Your task to perform on an android device: Do I have any events today? Image 0: 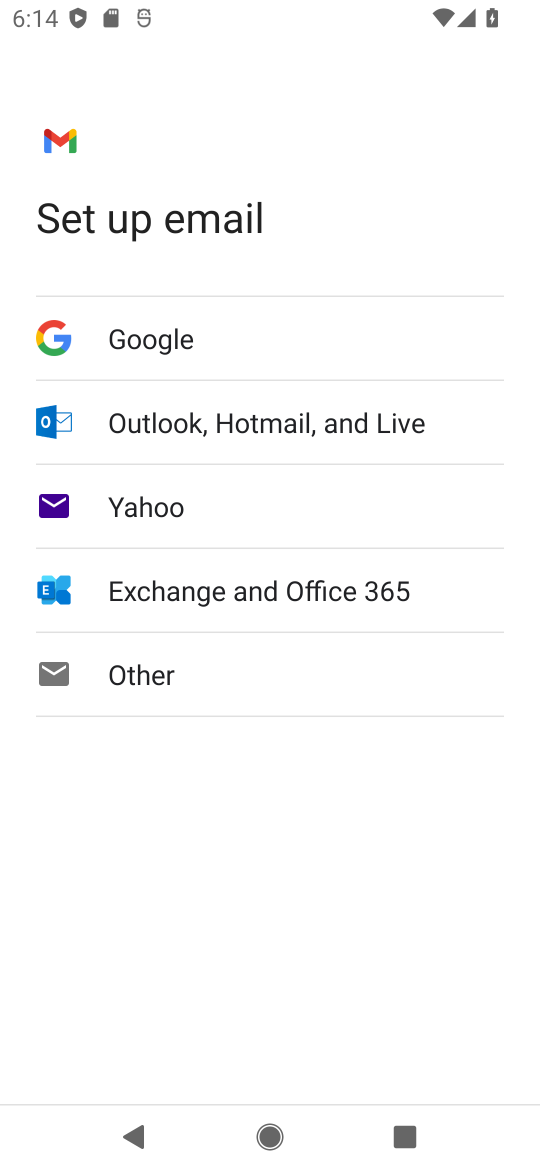
Step 0: press home button
Your task to perform on an android device: Do I have any events today? Image 1: 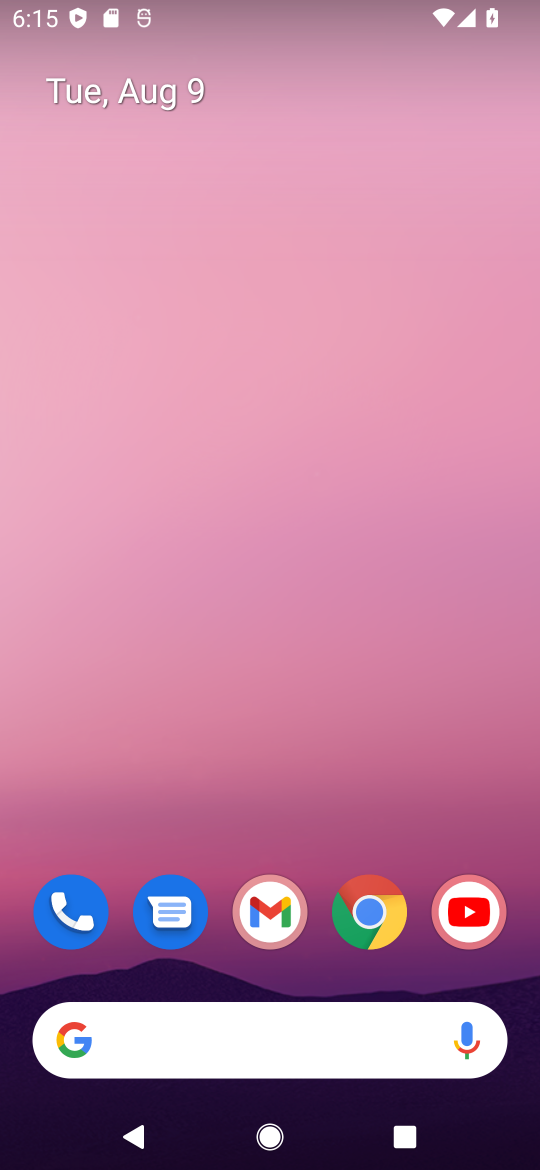
Step 1: drag from (298, 780) to (357, 276)
Your task to perform on an android device: Do I have any events today? Image 2: 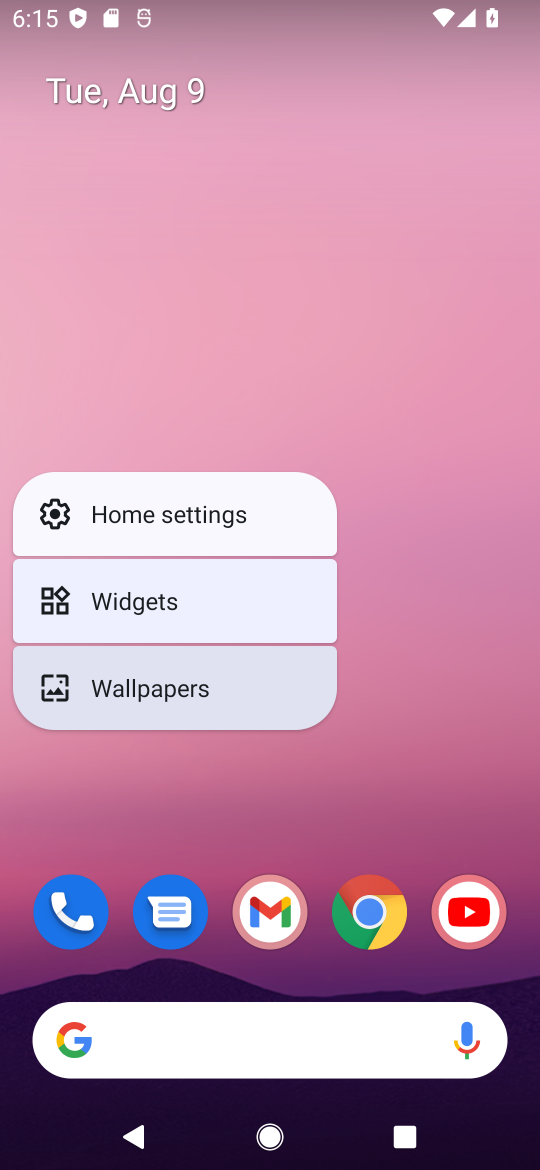
Step 2: drag from (366, 819) to (445, 310)
Your task to perform on an android device: Do I have any events today? Image 3: 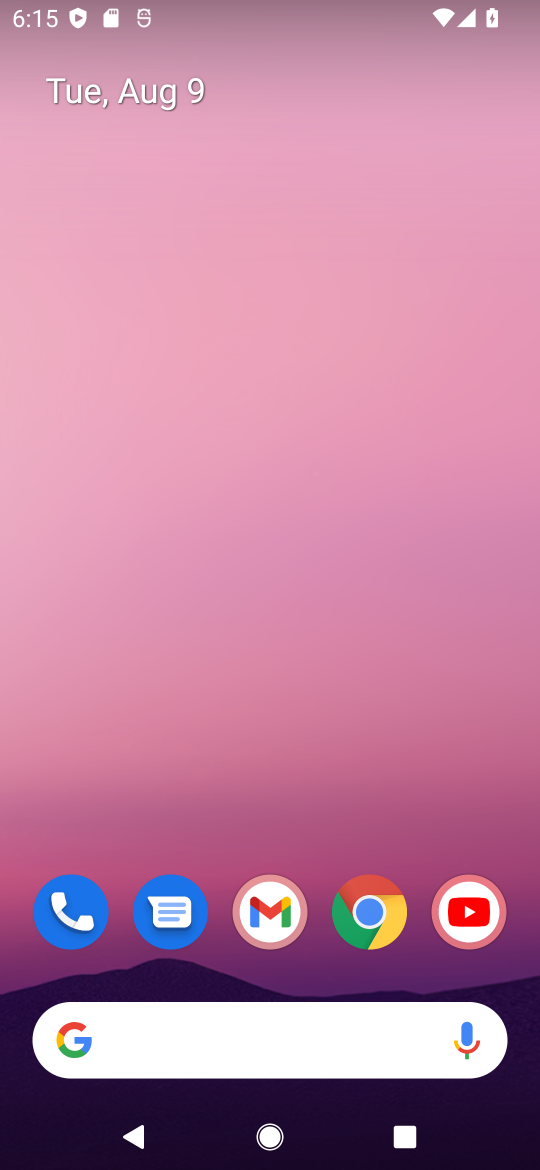
Step 3: drag from (273, 717) to (497, 7)
Your task to perform on an android device: Do I have any events today? Image 4: 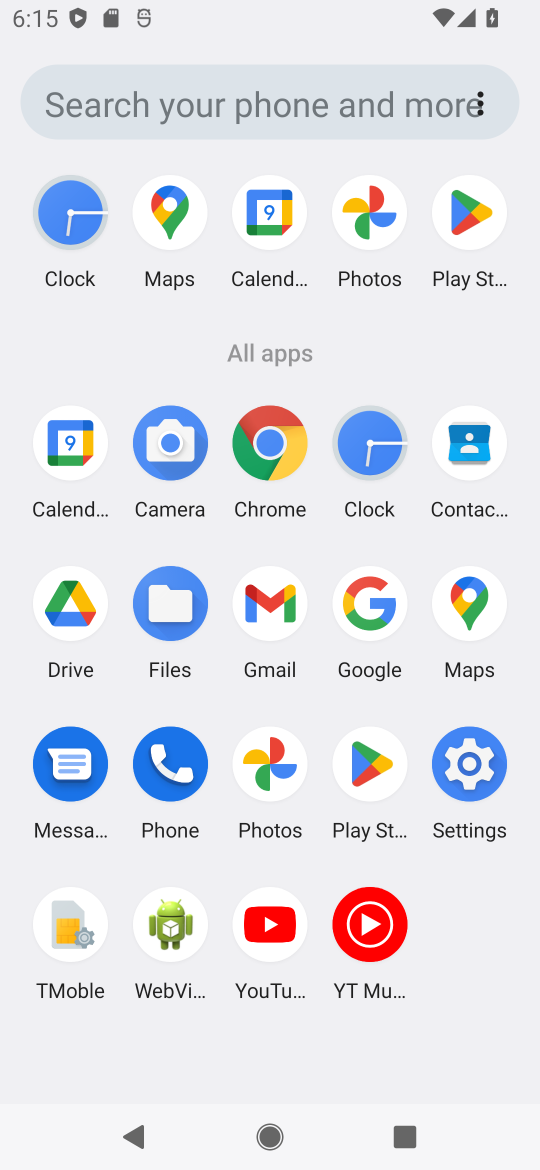
Step 4: click (71, 442)
Your task to perform on an android device: Do I have any events today? Image 5: 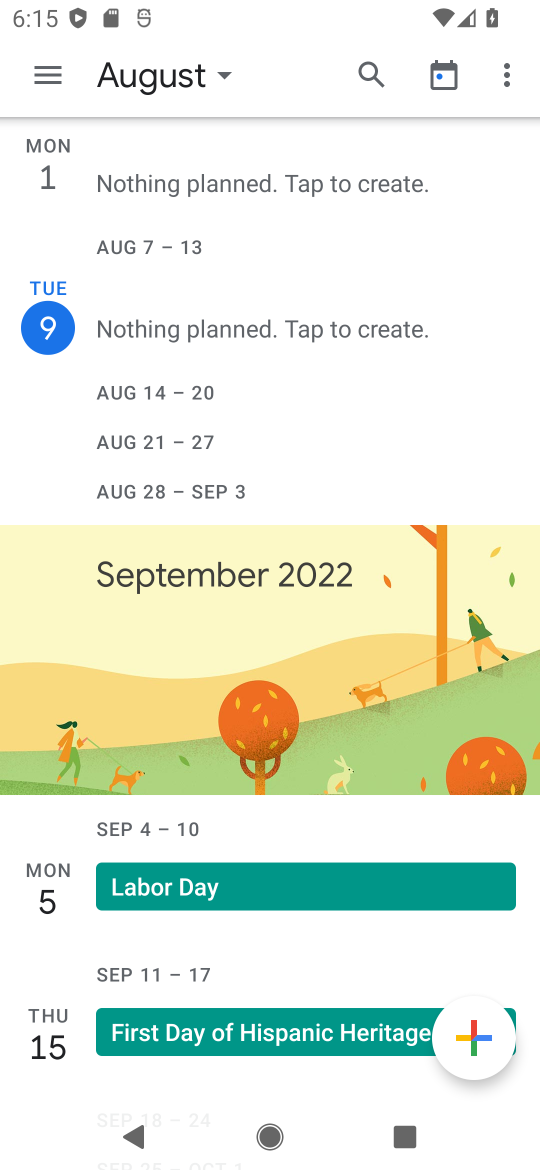
Step 5: click (47, 328)
Your task to perform on an android device: Do I have any events today? Image 6: 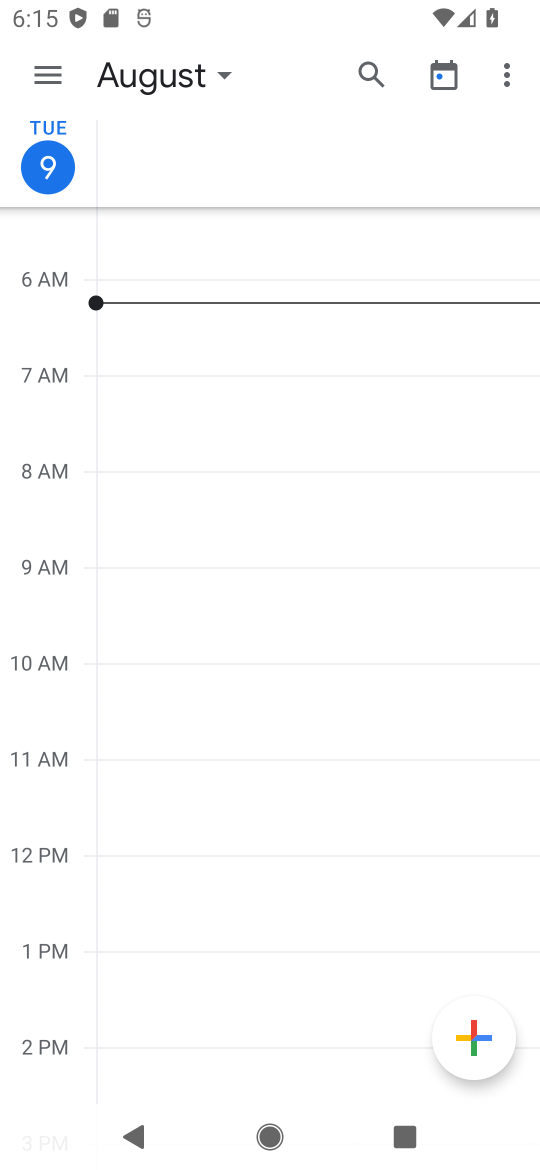
Step 6: task complete